Your task to perform on an android device: Open Google Chrome Image 0: 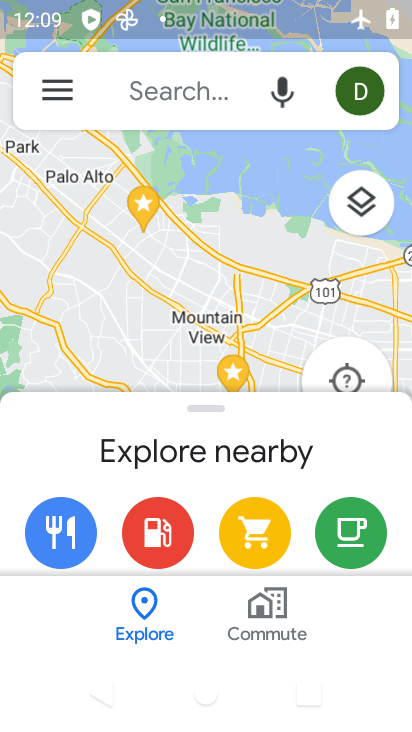
Step 0: press home button
Your task to perform on an android device: Open Google Chrome Image 1: 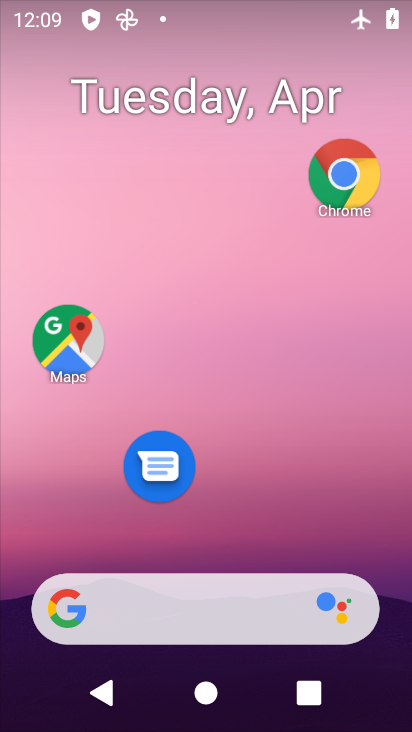
Step 1: drag from (189, 605) to (191, 4)
Your task to perform on an android device: Open Google Chrome Image 2: 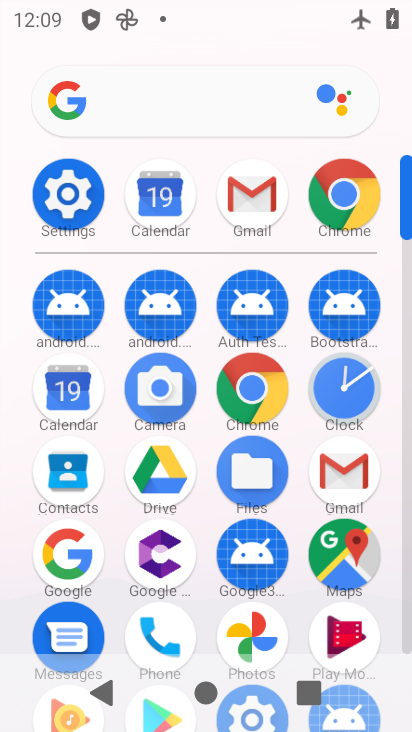
Step 2: click (347, 208)
Your task to perform on an android device: Open Google Chrome Image 3: 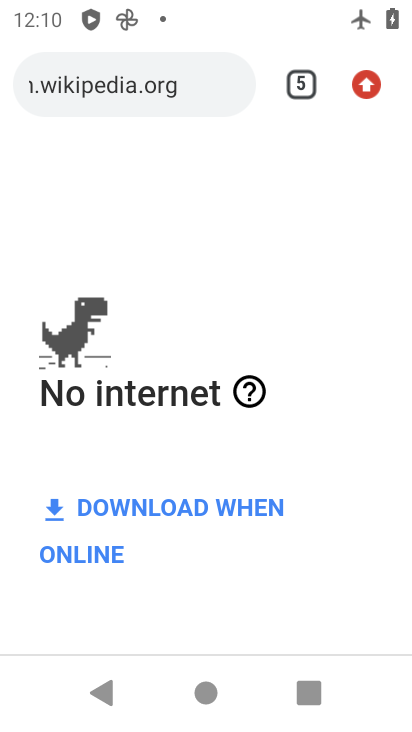
Step 3: task complete